Your task to perform on an android device: Go to network settings Image 0: 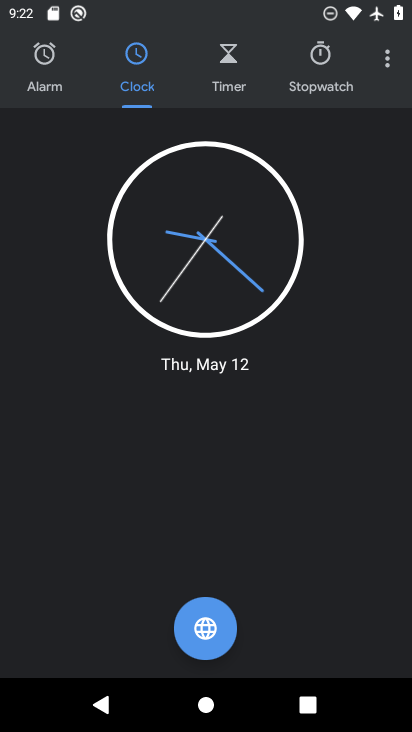
Step 0: press home button
Your task to perform on an android device: Go to network settings Image 1: 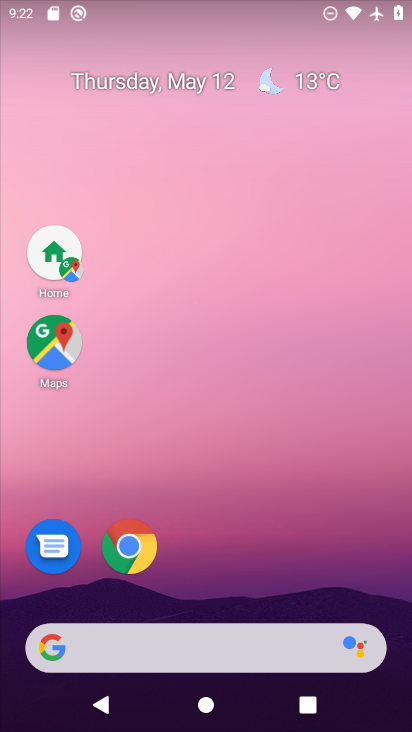
Step 1: drag from (147, 657) to (332, 98)
Your task to perform on an android device: Go to network settings Image 2: 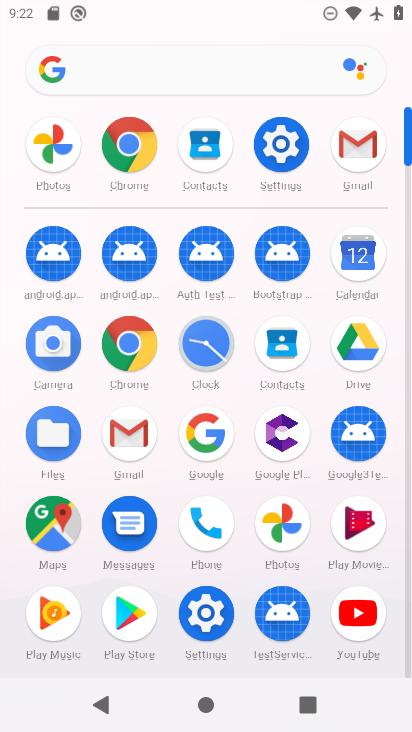
Step 2: click (288, 158)
Your task to perform on an android device: Go to network settings Image 3: 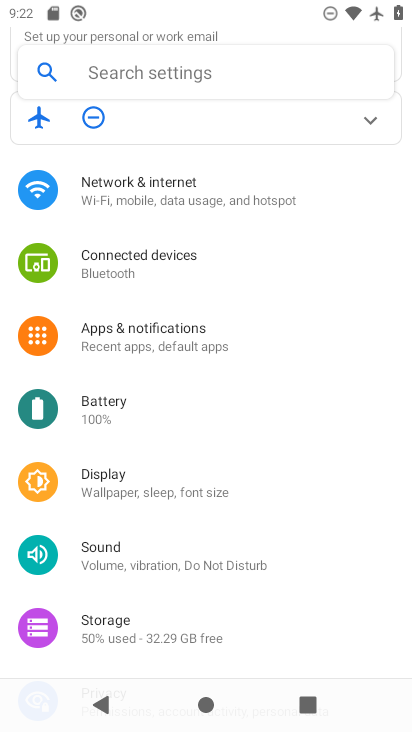
Step 3: click (199, 192)
Your task to perform on an android device: Go to network settings Image 4: 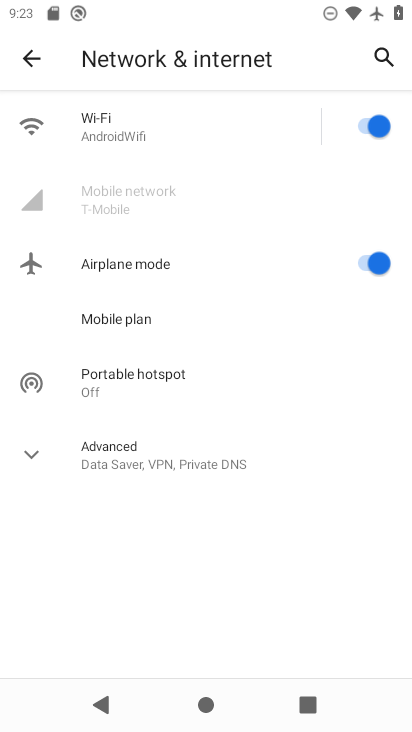
Step 4: task complete